Your task to perform on an android device: uninstall "Gmail" Image 0: 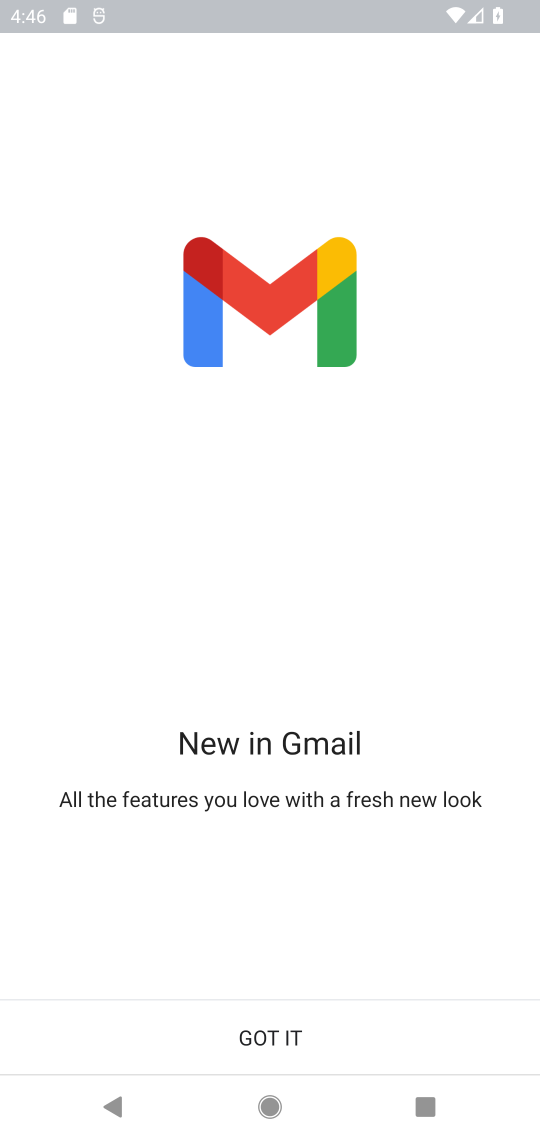
Step 0: press home button
Your task to perform on an android device: uninstall "Gmail" Image 1: 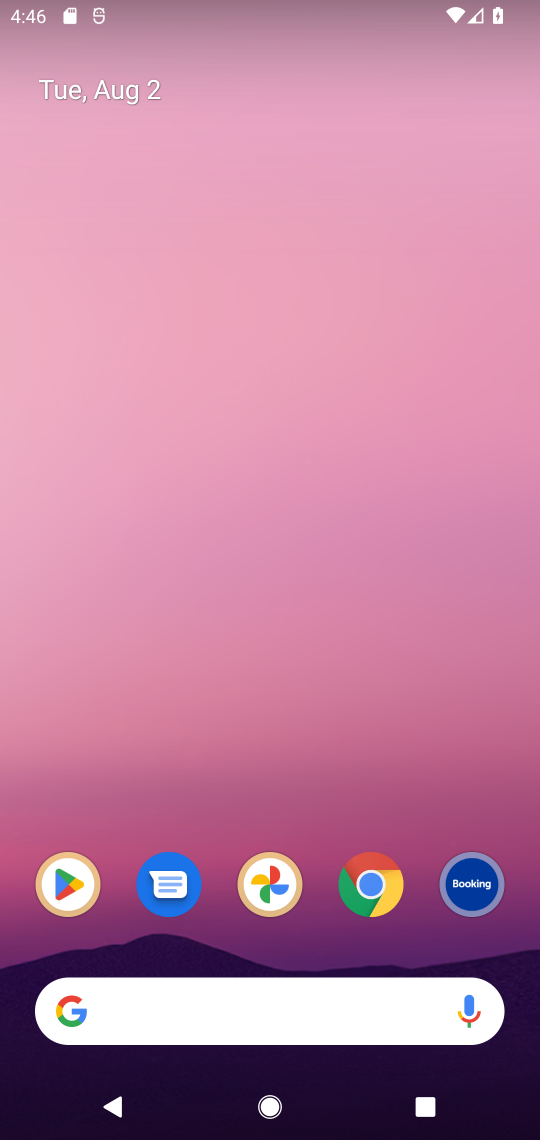
Step 1: click (50, 865)
Your task to perform on an android device: uninstall "Gmail" Image 2: 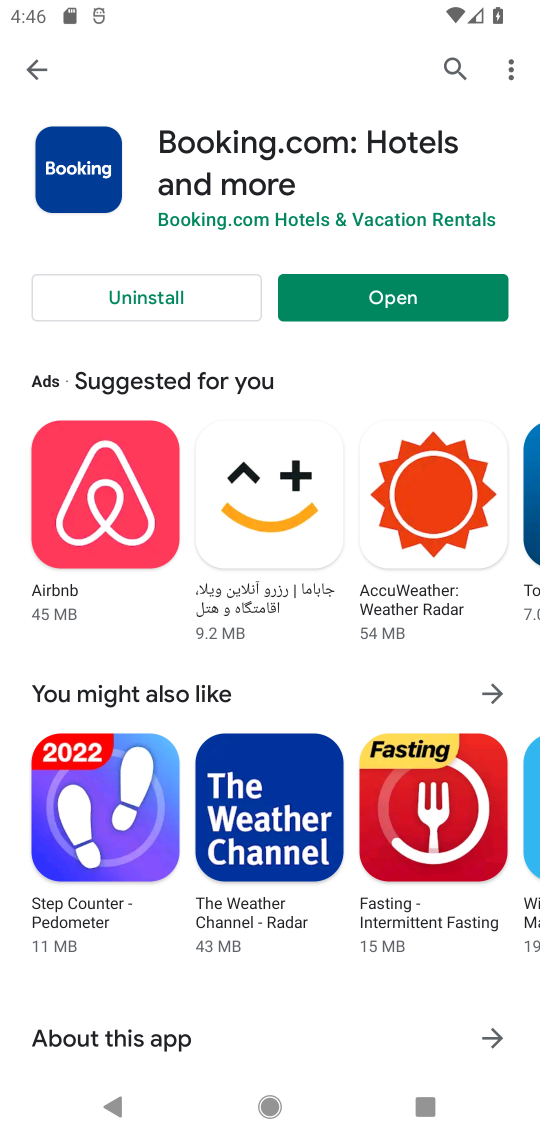
Step 2: click (455, 80)
Your task to perform on an android device: uninstall "Gmail" Image 3: 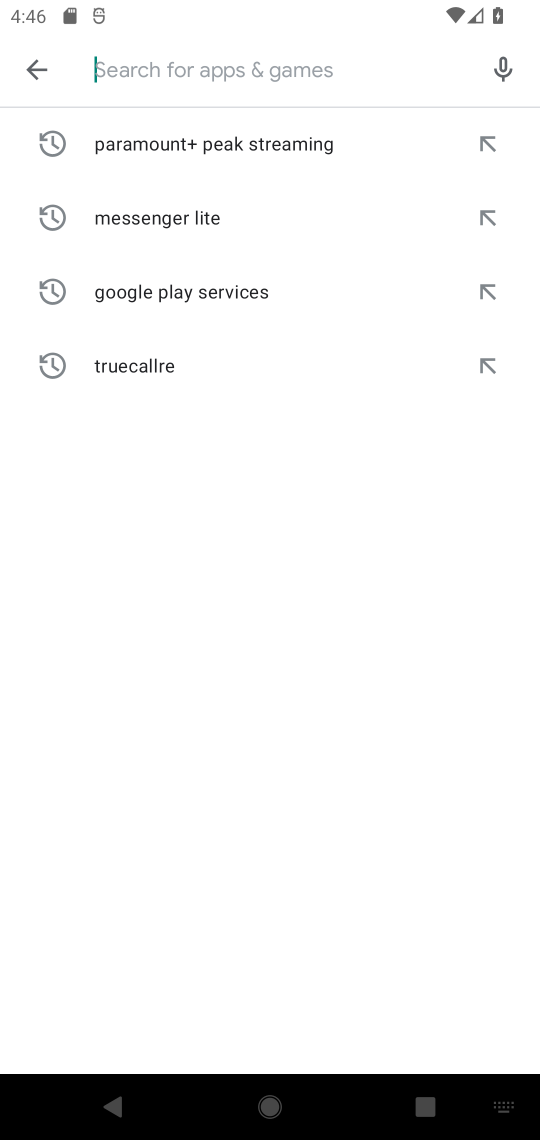
Step 3: type "Gmail"
Your task to perform on an android device: uninstall "Gmail" Image 4: 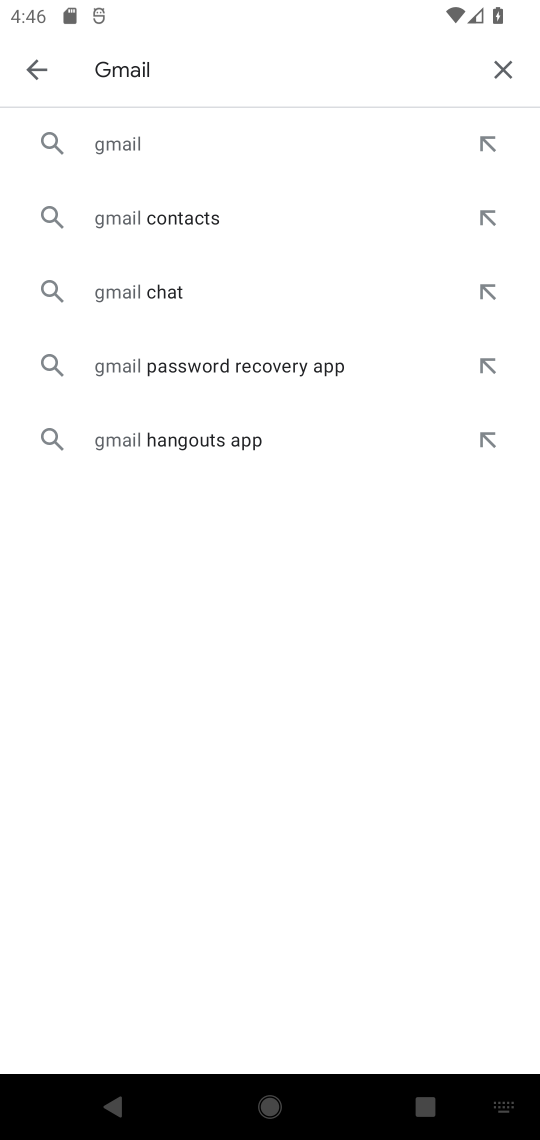
Step 4: click (201, 129)
Your task to perform on an android device: uninstall "Gmail" Image 5: 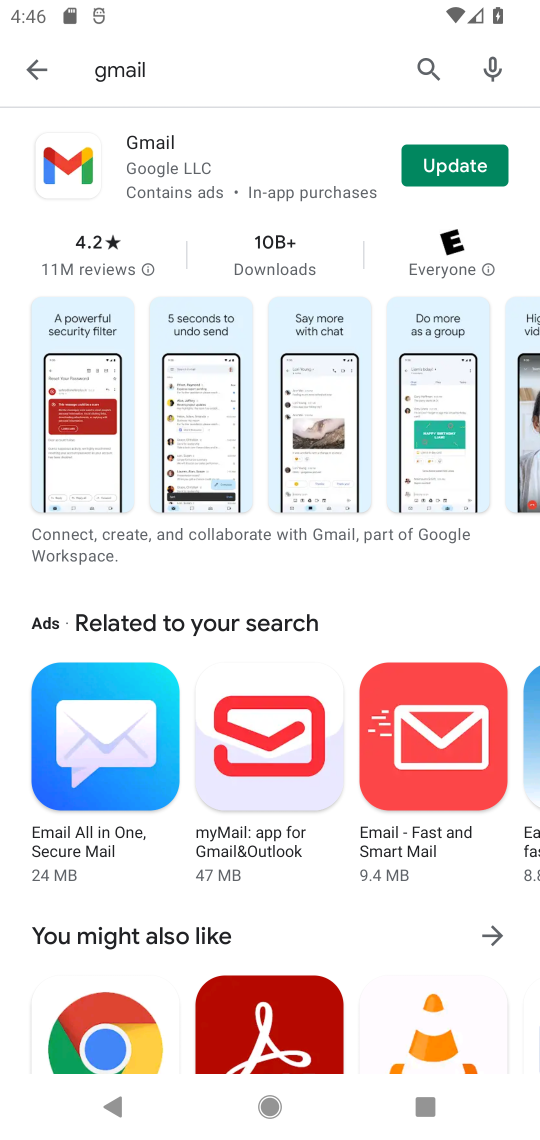
Step 5: click (263, 147)
Your task to perform on an android device: uninstall "Gmail" Image 6: 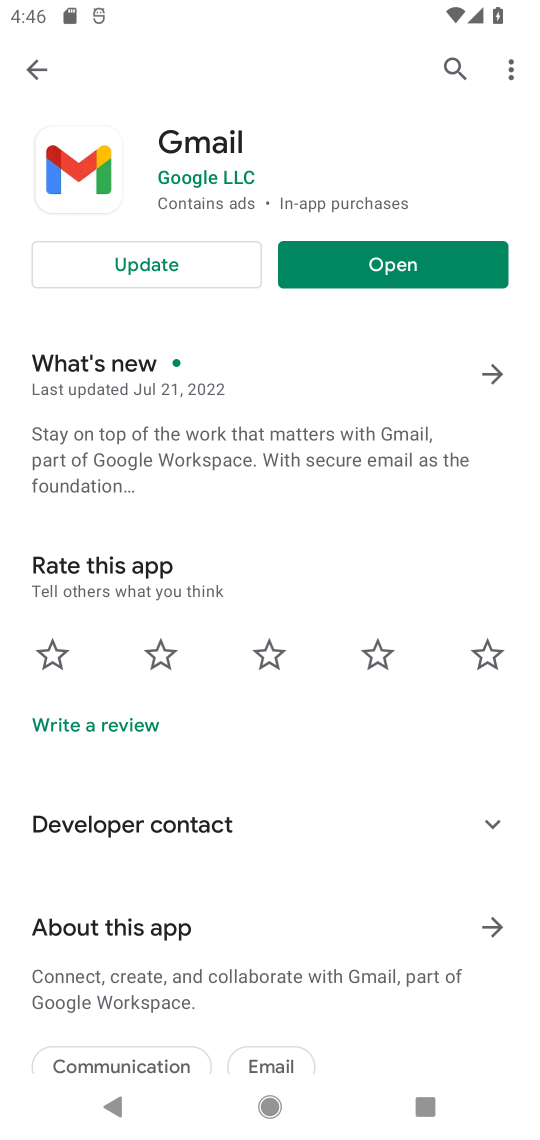
Step 6: click (502, 54)
Your task to perform on an android device: uninstall "Gmail" Image 7: 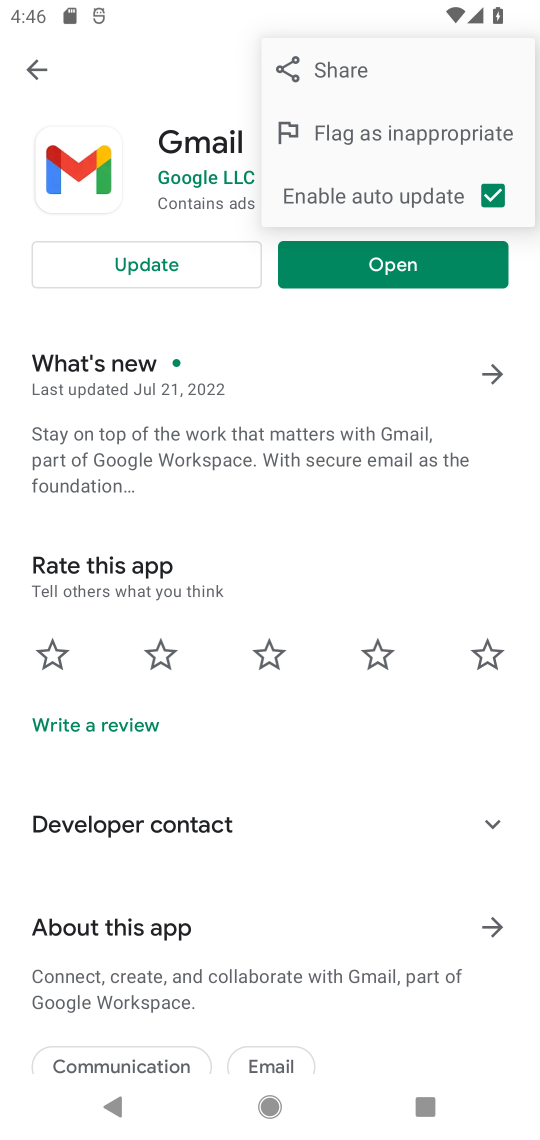
Step 7: click (476, 488)
Your task to perform on an android device: uninstall "Gmail" Image 8: 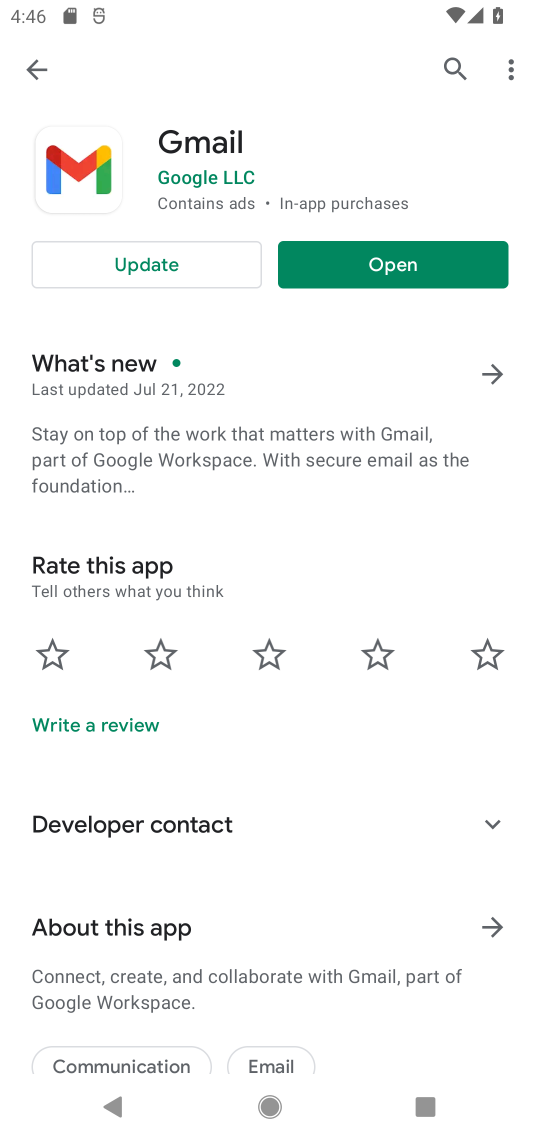
Step 8: task complete